Your task to perform on an android device: turn on sleep mode Image 0: 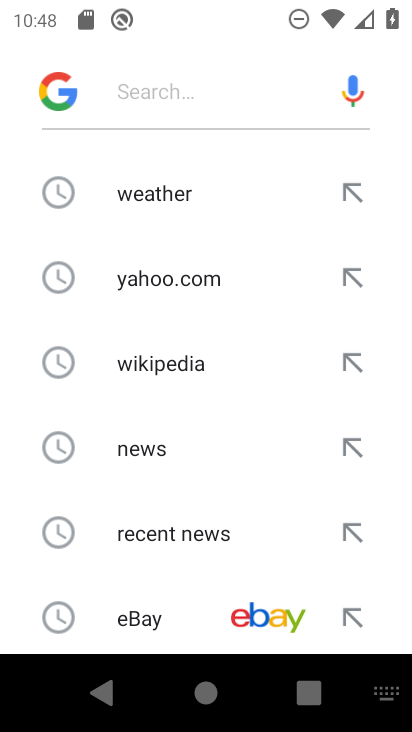
Step 0: press home button
Your task to perform on an android device: turn on sleep mode Image 1: 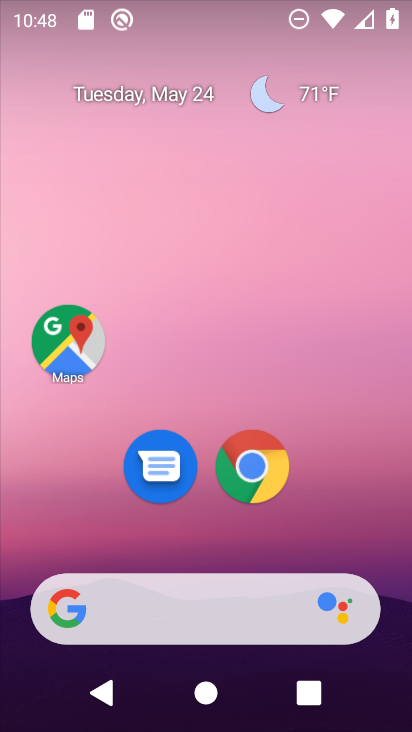
Step 1: drag from (183, 520) to (278, 136)
Your task to perform on an android device: turn on sleep mode Image 2: 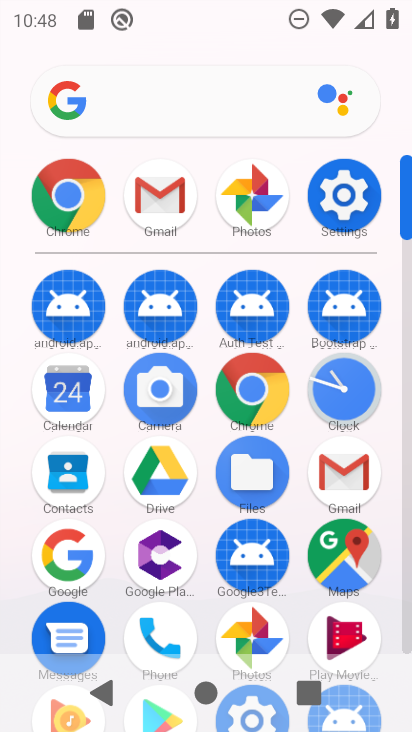
Step 2: click (357, 202)
Your task to perform on an android device: turn on sleep mode Image 3: 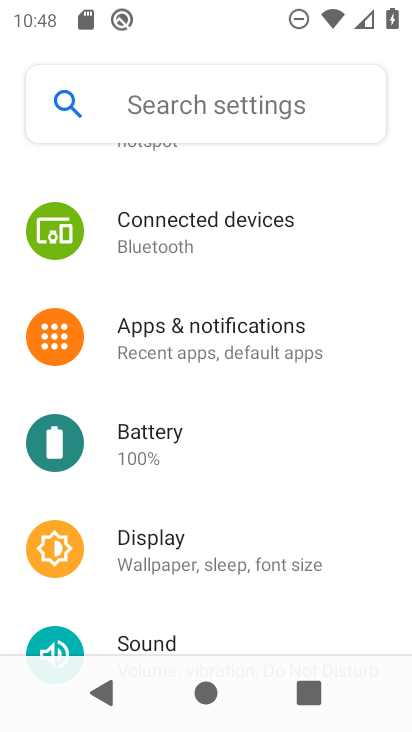
Step 3: click (224, 107)
Your task to perform on an android device: turn on sleep mode Image 4: 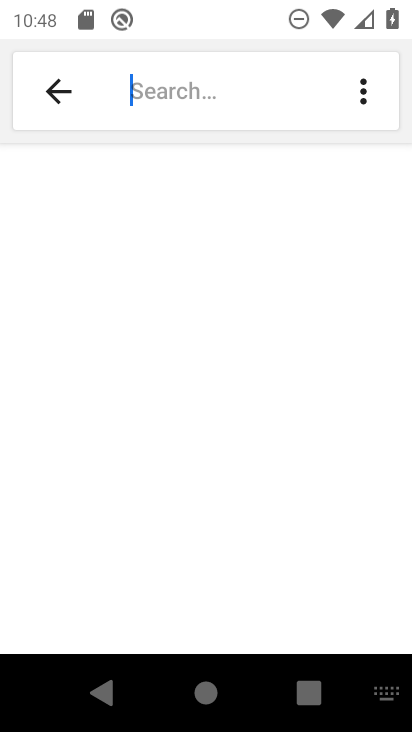
Step 4: type "sleep mode"
Your task to perform on an android device: turn on sleep mode Image 5: 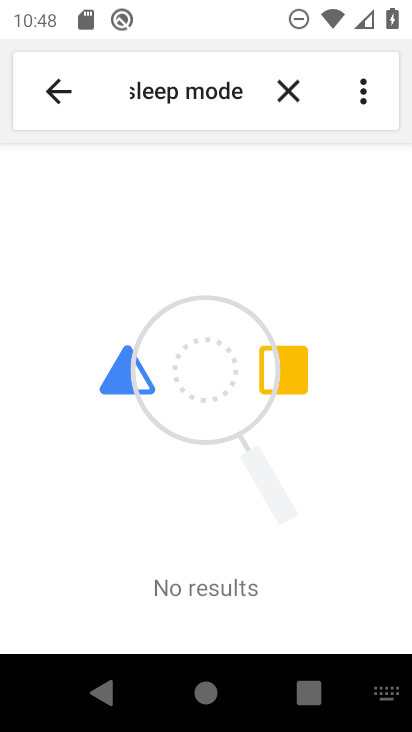
Step 5: click (269, 316)
Your task to perform on an android device: turn on sleep mode Image 6: 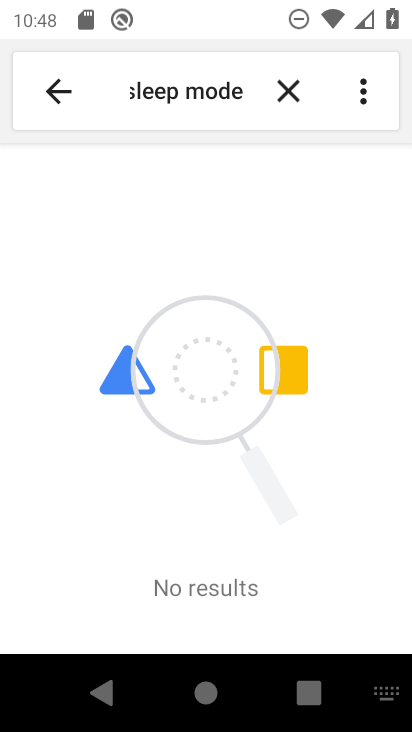
Step 6: task complete